Your task to perform on an android device: Search for flights from Seoul to Mexico city Image 0: 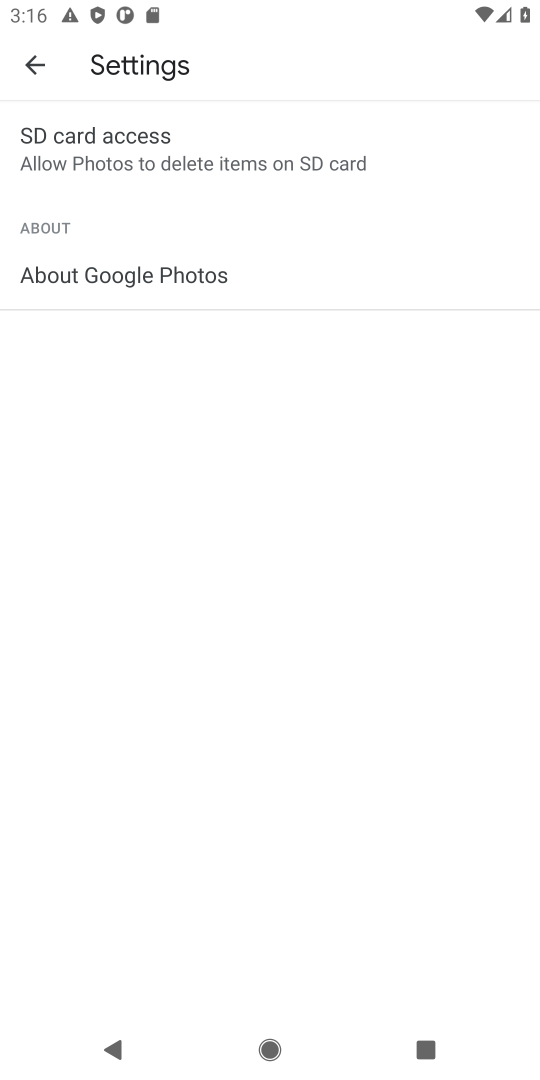
Step 0: press home button
Your task to perform on an android device: Search for flights from Seoul to Mexico city Image 1: 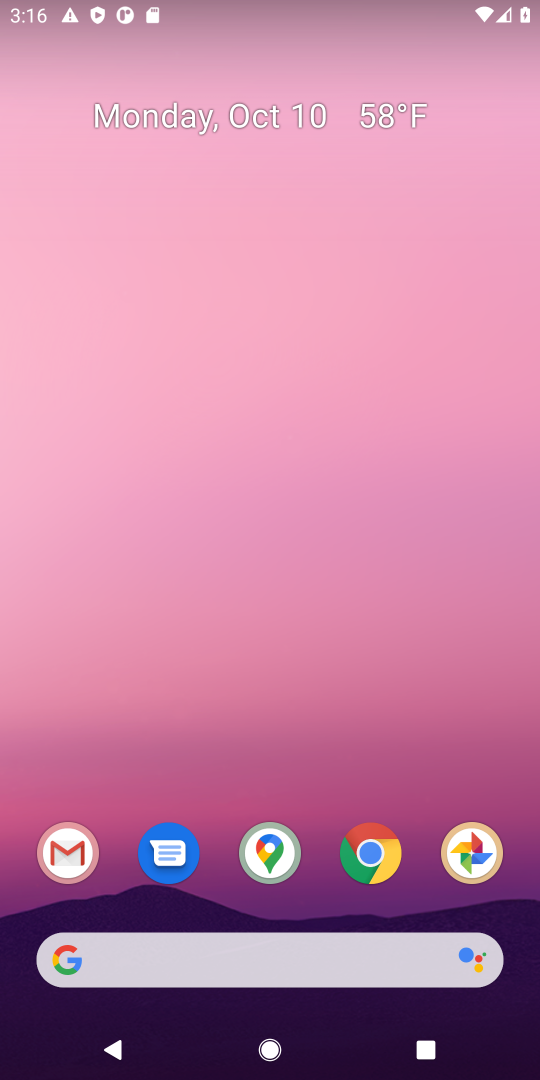
Step 1: click (170, 961)
Your task to perform on an android device: Search for flights from Seoul to Mexico city Image 2: 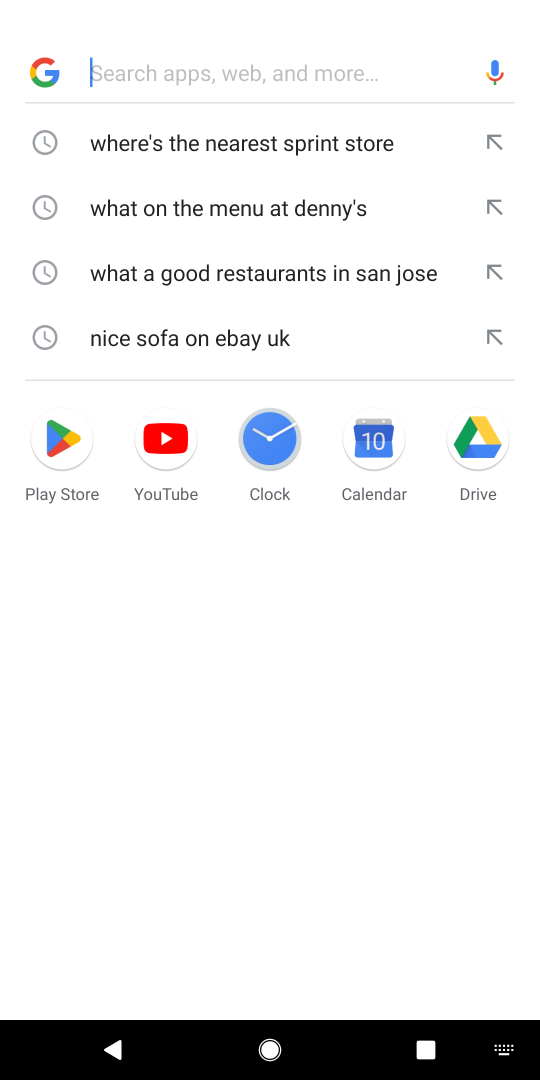
Step 2: click (190, 47)
Your task to perform on an android device: Search for flights from Seoul to Mexico city Image 3: 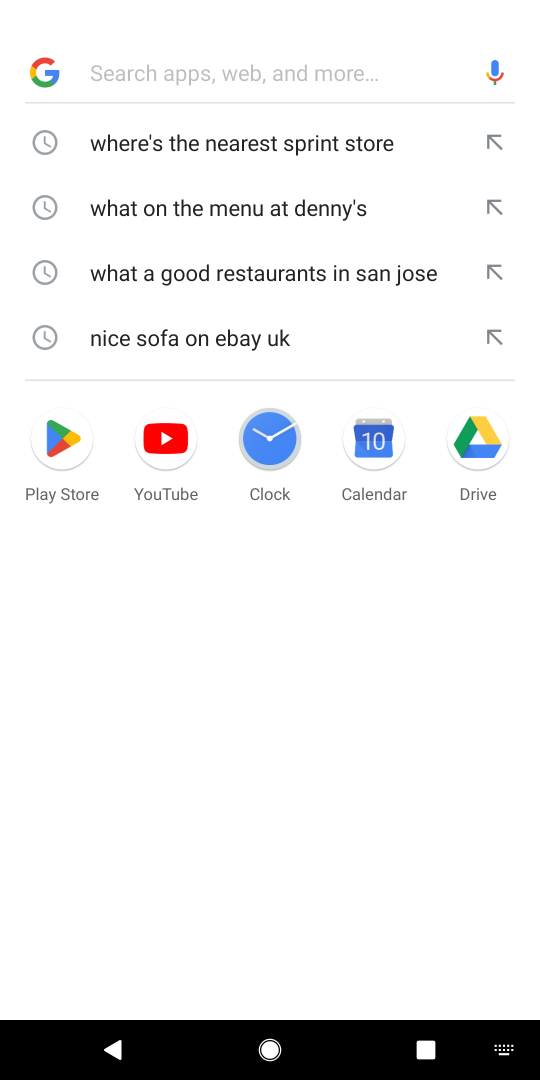
Step 3: type "Search for flights from Seoul to Mexico city"
Your task to perform on an android device: Search for flights from Seoul to Mexico city Image 4: 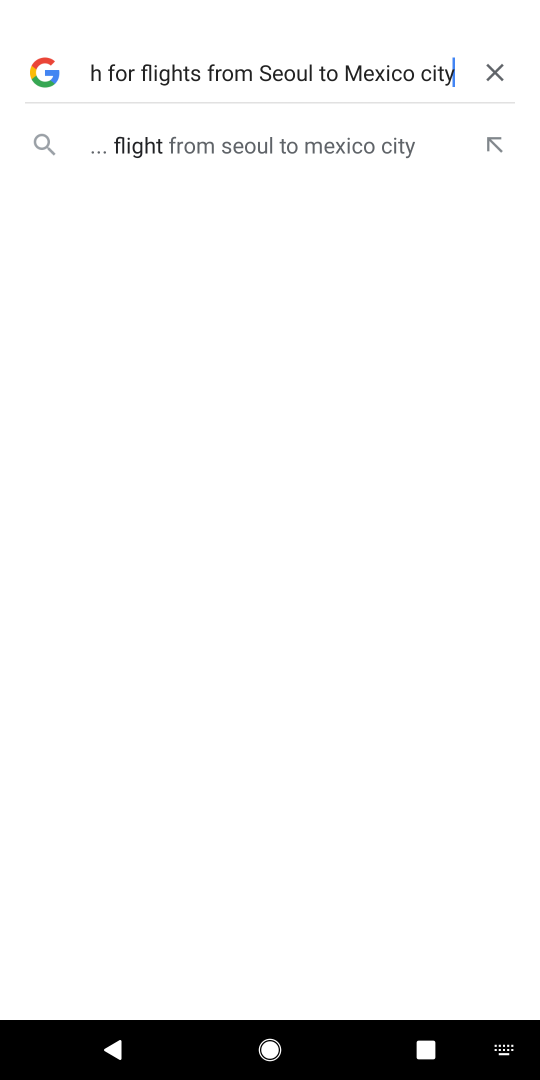
Step 4: click (237, 135)
Your task to perform on an android device: Search for flights from Seoul to Mexico city Image 5: 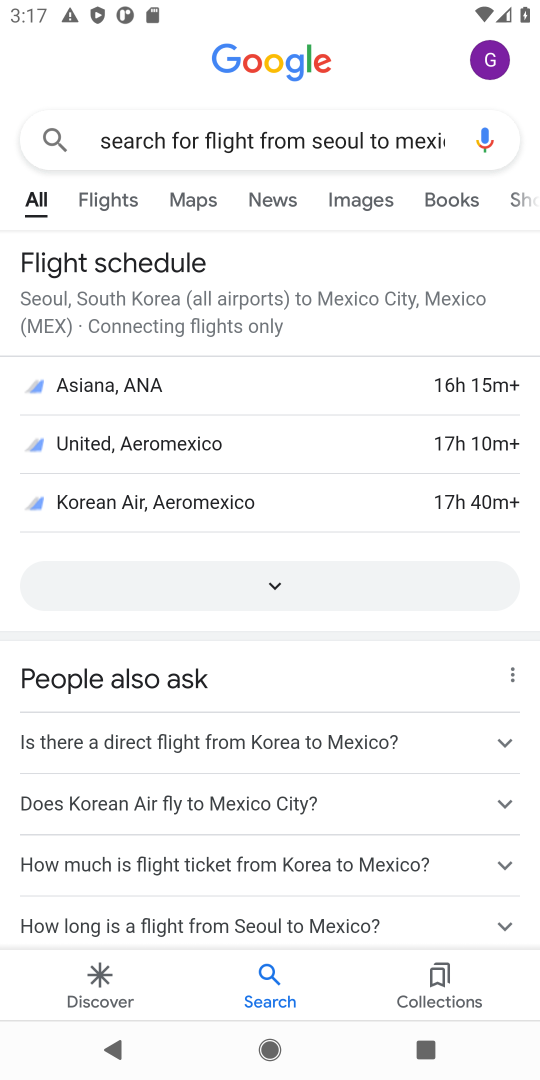
Step 5: task complete